Your task to perform on an android device: Go to display settings Image 0: 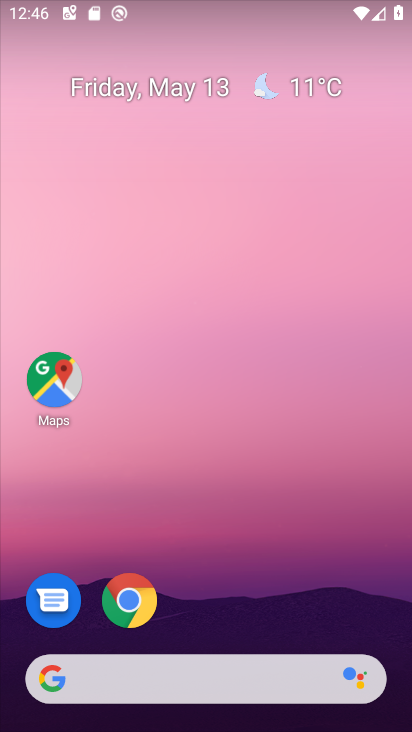
Step 0: drag from (215, 473) to (284, 99)
Your task to perform on an android device: Go to display settings Image 1: 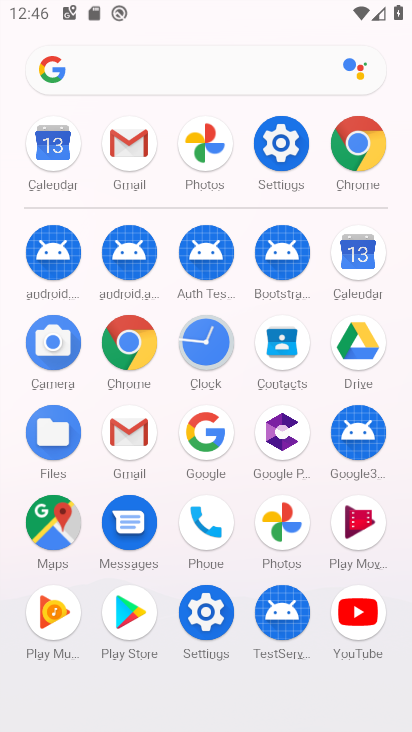
Step 1: click (278, 182)
Your task to perform on an android device: Go to display settings Image 2: 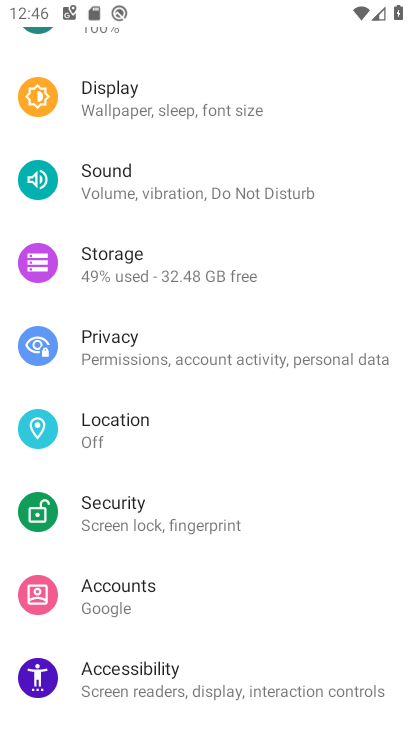
Step 2: drag from (185, 227) to (173, 398)
Your task to perform on an android device: Go to display settings Image 3: 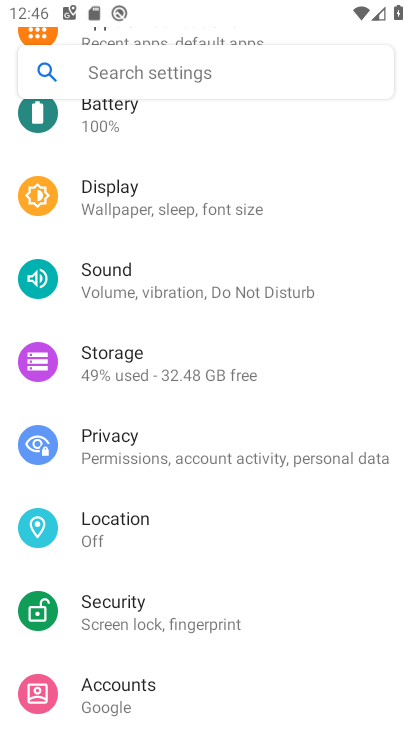
Step 3: click (183, 211)
Your task to perform on an android device: Go to display settings Image 4: 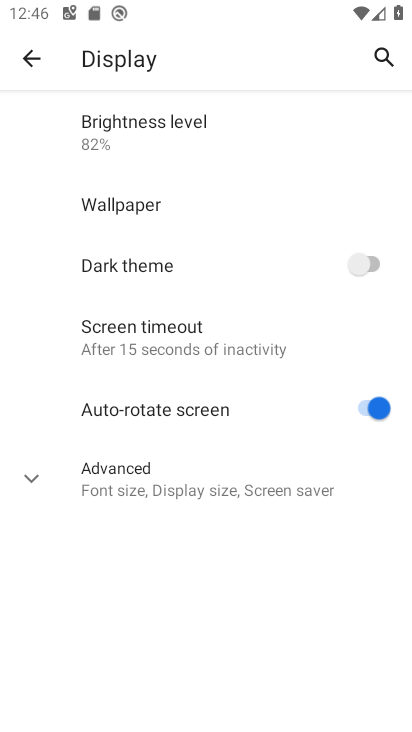
Step 4: task complete